Your task to perform on an android device: Go to settings Image 0: 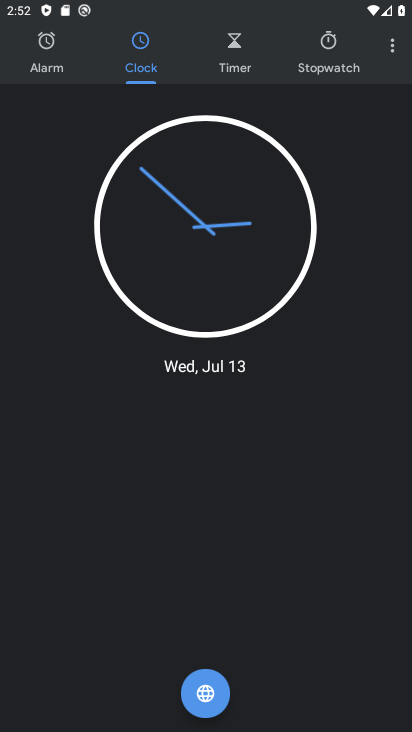
Step 0: press home button
Your task to perform on an android device: Go to settings Image 1: 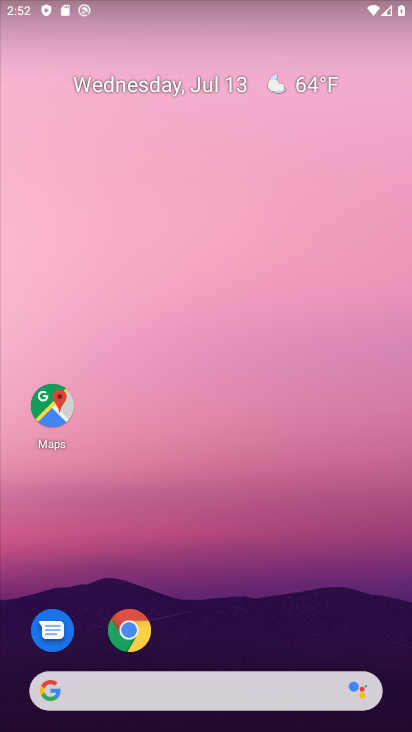
Step 1: drag from (193, 602) to (247, 356)
Your task to perform on an android device: Go to settings Image 2: 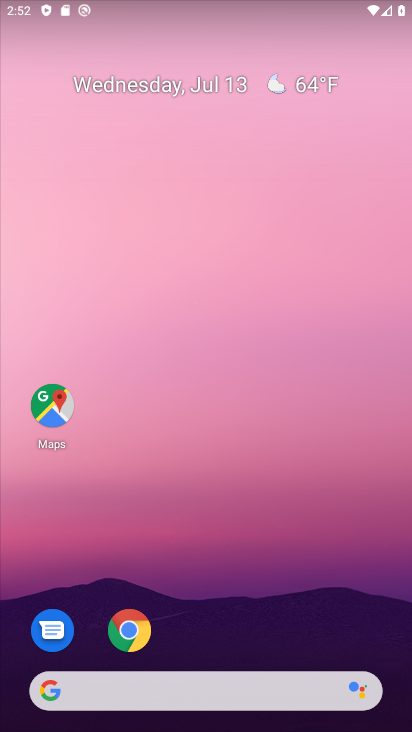
Step 2: drag from (262, 49) to (260, 1)
Your task to perform on an android device: Go to settings Image 3: 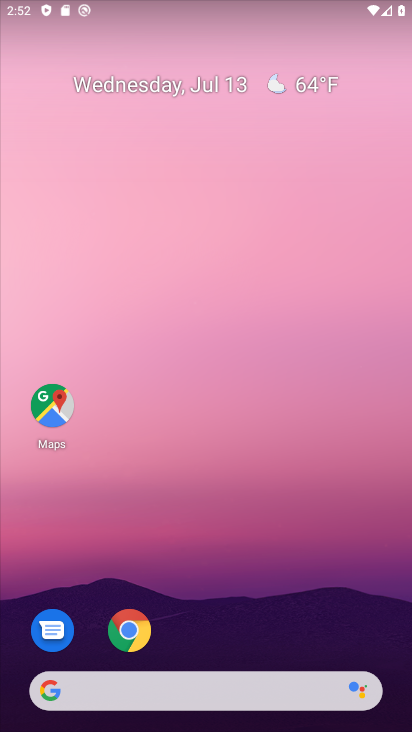
Step 3: click (222, 323)
Your task to perform on an android device: Go to settings Image 4: 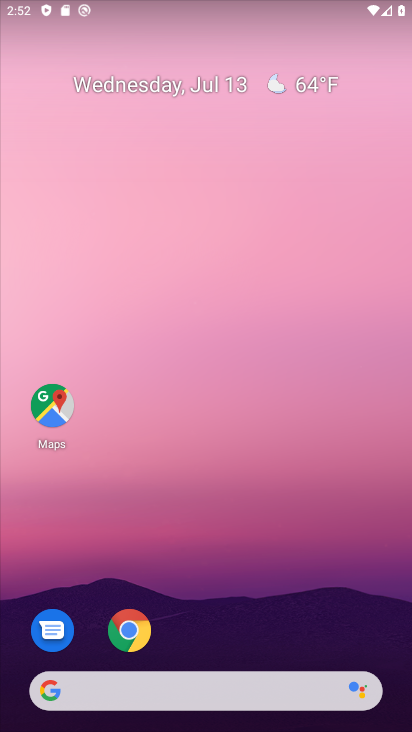
Step 4: drag from (265, 574) to (328, 41)
Your task to perform on an android device: Go to settings Image 5: 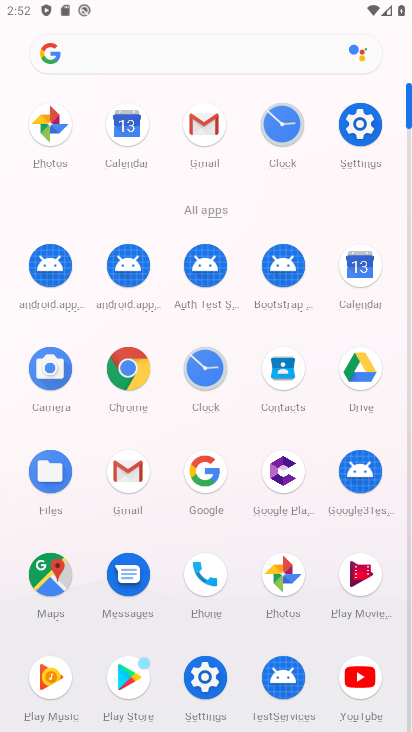
Step 5: click (378, 121)
Your task to perform on an android device: Go to settings Image 6: 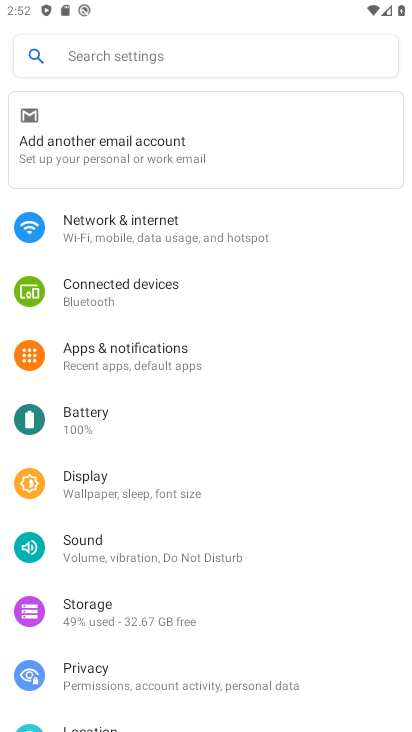
Step 6: task complete